Your task to perform on an android device: change the clock display to analog Image 0: 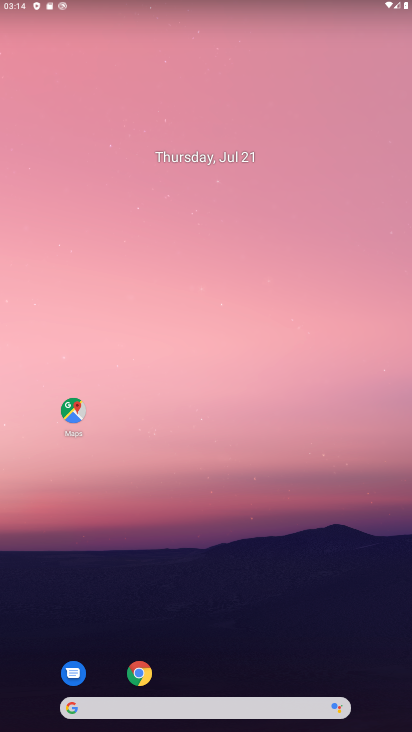
Step 0: drag from (265, 358) to (263, 81)
Your task to perform on an android device: change the clock display to analog Image 1: 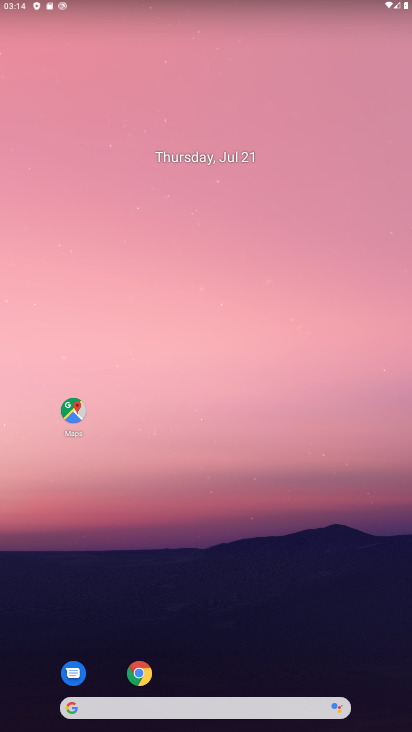
Step 1: drag from (286, 583) to (232, 37)
Your task to perform on an android device: change the clock display to analog Image 2: 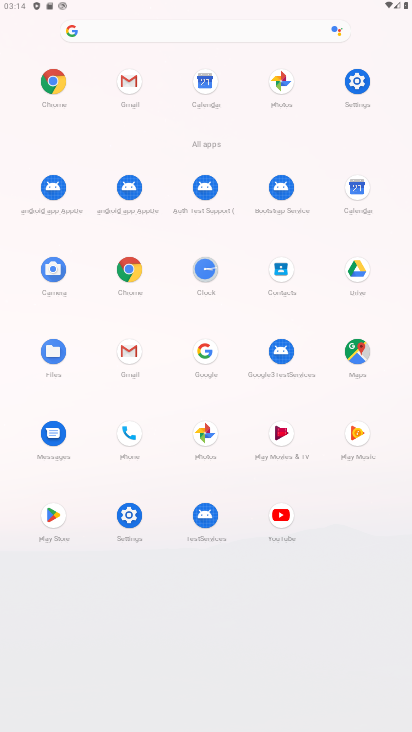
Step 2: click (207, 260)
Your task to perform on an android device: change the clock display to analog Image 3: 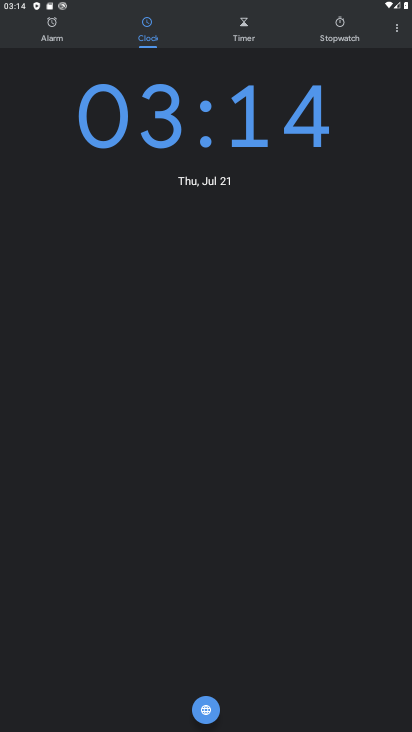
Step 3: click (396, 34)
Your task to perform on an android device: change the clock display to analog Image 4: 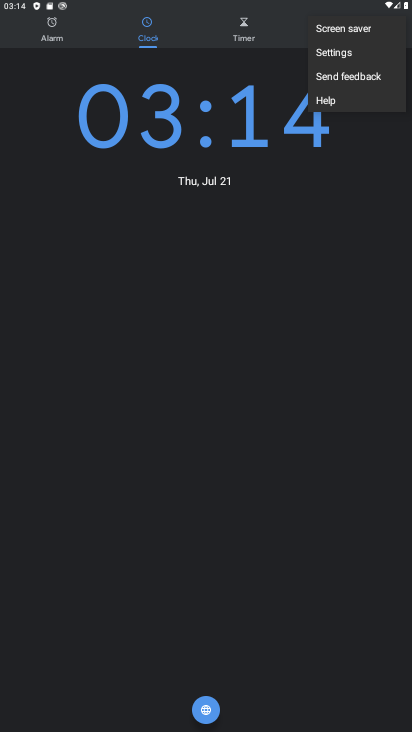
Step 4: click (358, 49)
Your task to perform on an android device: change the clock display to analog Image 5: 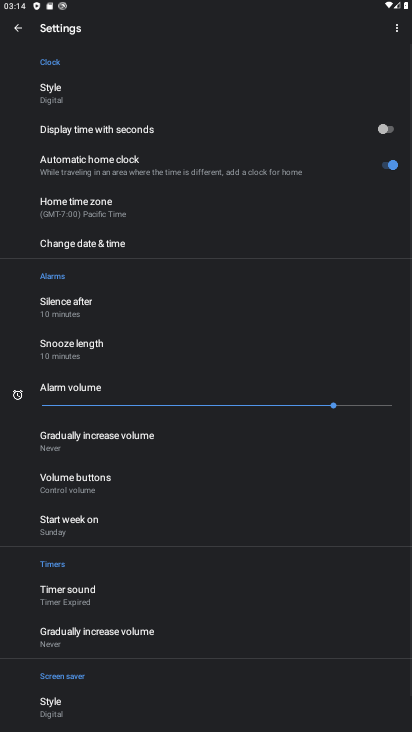
Step 5: click (68, 94)
Your task to perform on an android device: change the clock display to analog Image 6: 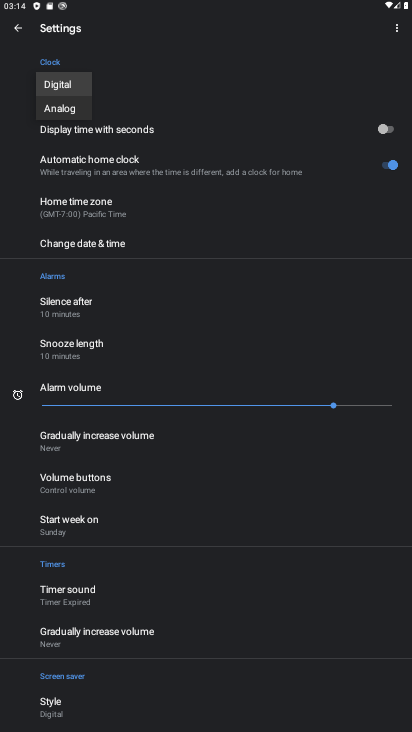
Step 6: click (66, 112)
Your task to perform on an android device: change the clock display to analog Image 7: 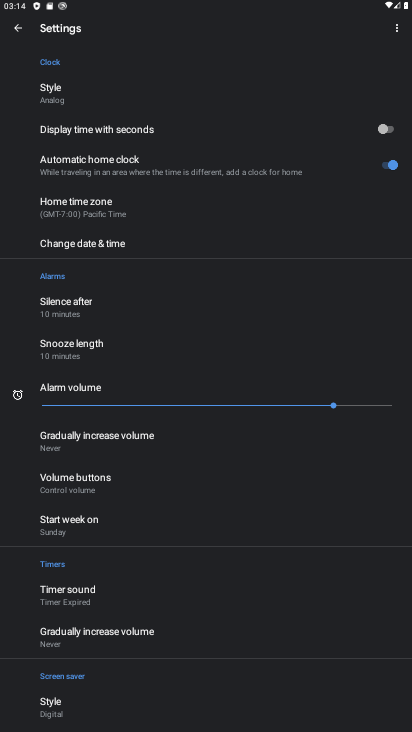
Step 7: task complete